Your task to perform on an android device: Look up the best rated desk lamps on IKEA Image 0: 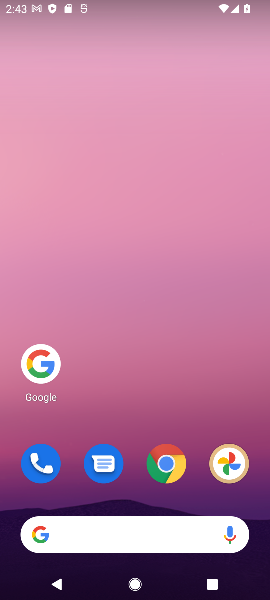
Step 0: click (34, 366)
Your task to perform on an android device: Look up the best rated desk lamps on IKEA Image 1: 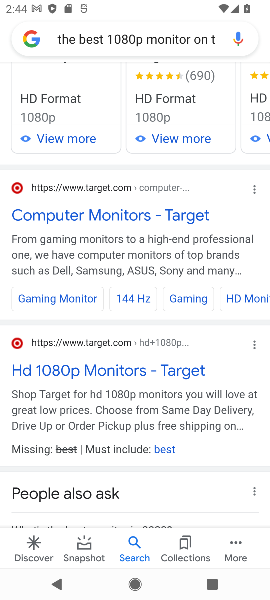
Step 1: click (170, 37)
Your task to perform on an android device: Look up the best rated desk lamps on IKEA Image 2: 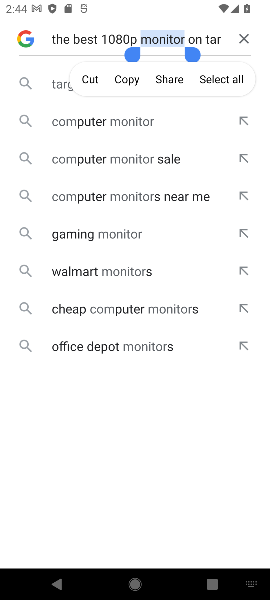
Step 2: click (242, 41)
Your task to perform on an android device: Look up the best rated desk lamps on IKEA Image 3: 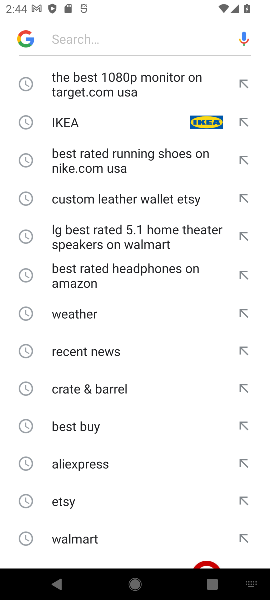
Step 3: click (86, 36)
Your task to perform on an android device: Look up the best rated desk lamps on IKEA Image 4: 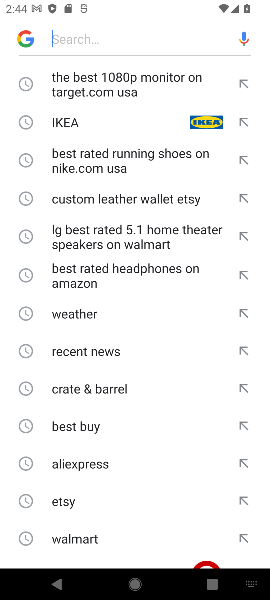
Step 4: type "the best rated desk lamps on IKEA "
Your task to perform on an android device: Look up the best rated desk lamps on IKEA Image 5: 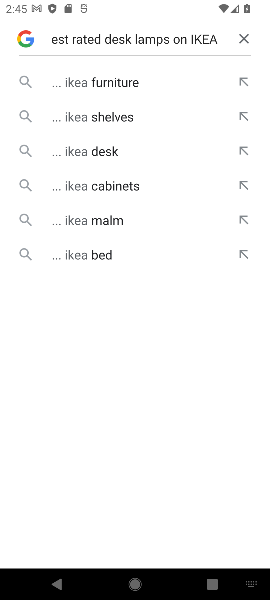
Step 5: click (95, 80)
Your task to perform on an android device: Look up the best rated desk lamps on IKEA Image 6: 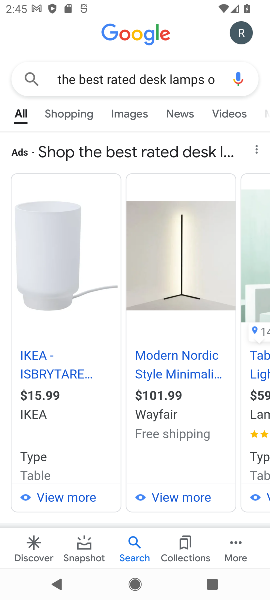
Step 6: task complete